Your task to perform on an android device: Open Google Image 0: 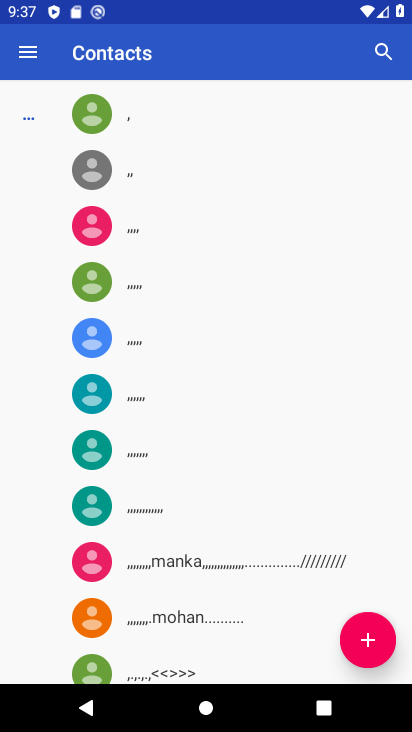
Step 0: press home button
Your task to perform on an android device: Open Google Image 1: 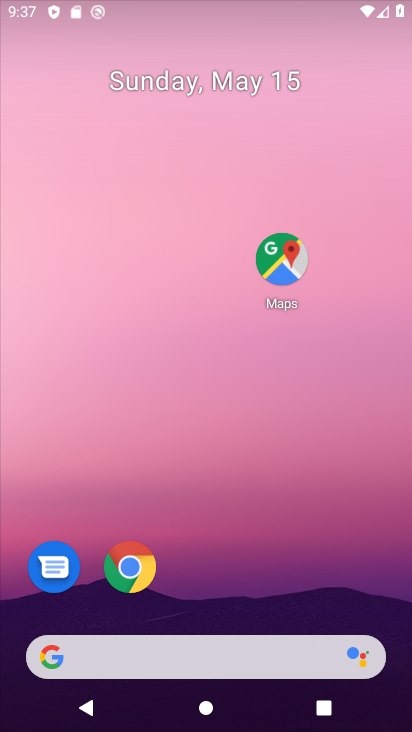
Step 1: drag from (210, 567) to (189, 114)
Your task to perform on an android device: Open Google Image 2: 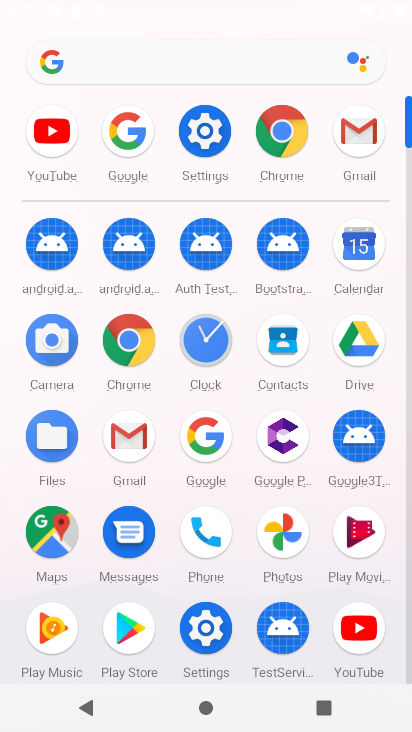
Step 2: click (209, 433)
Your task to perform on an android device: Open Google Image 3: 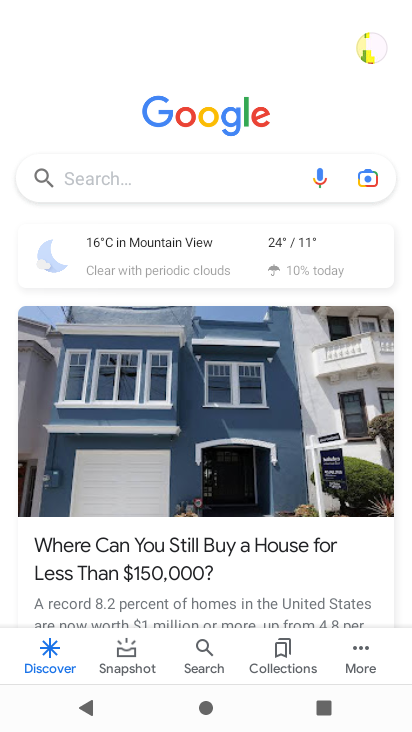
Step 3: task complete